Your task to perform on an android device: open app "Google Chat" (install if not already installed) Image 0: 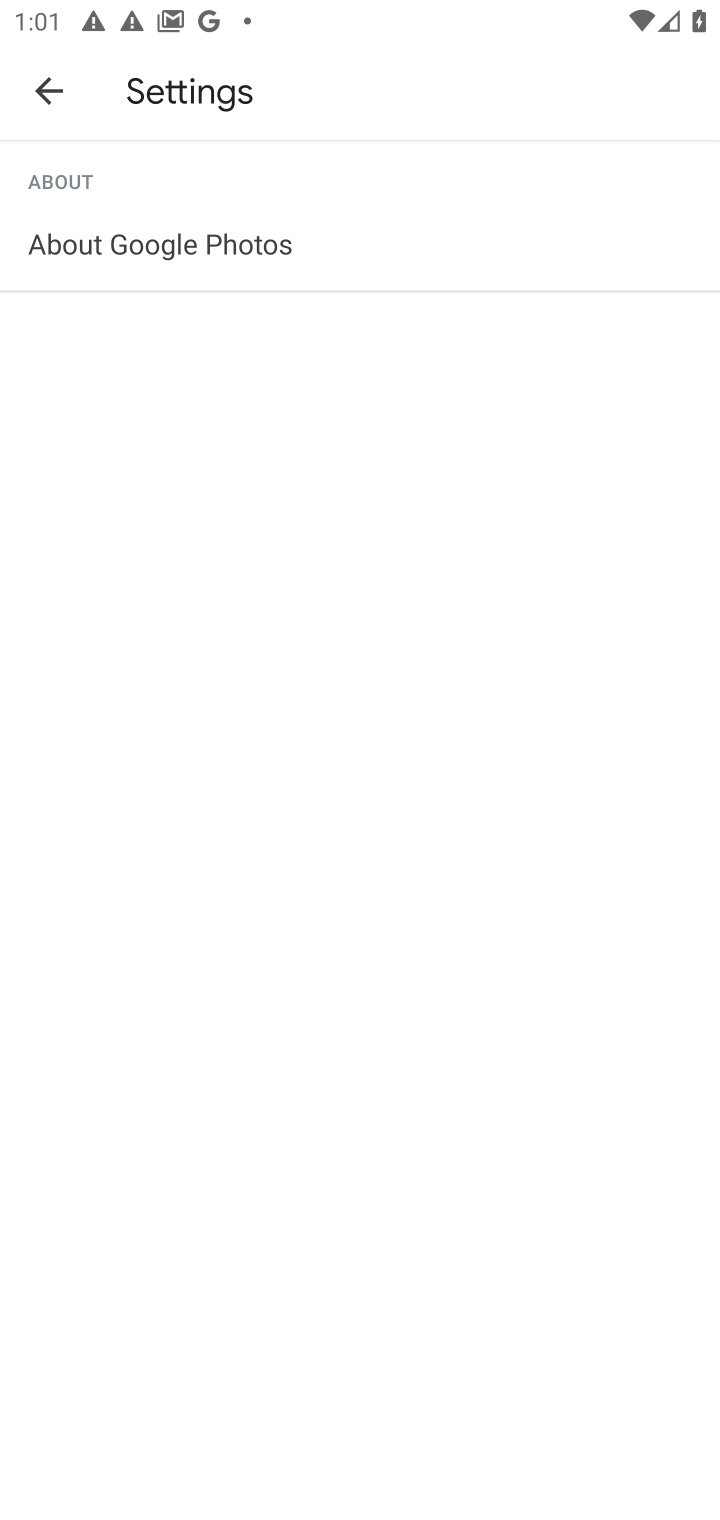
Step 0: press home button
Your task to perform on an android device: open app "Google Chat" (install if not already installed) Image 1: 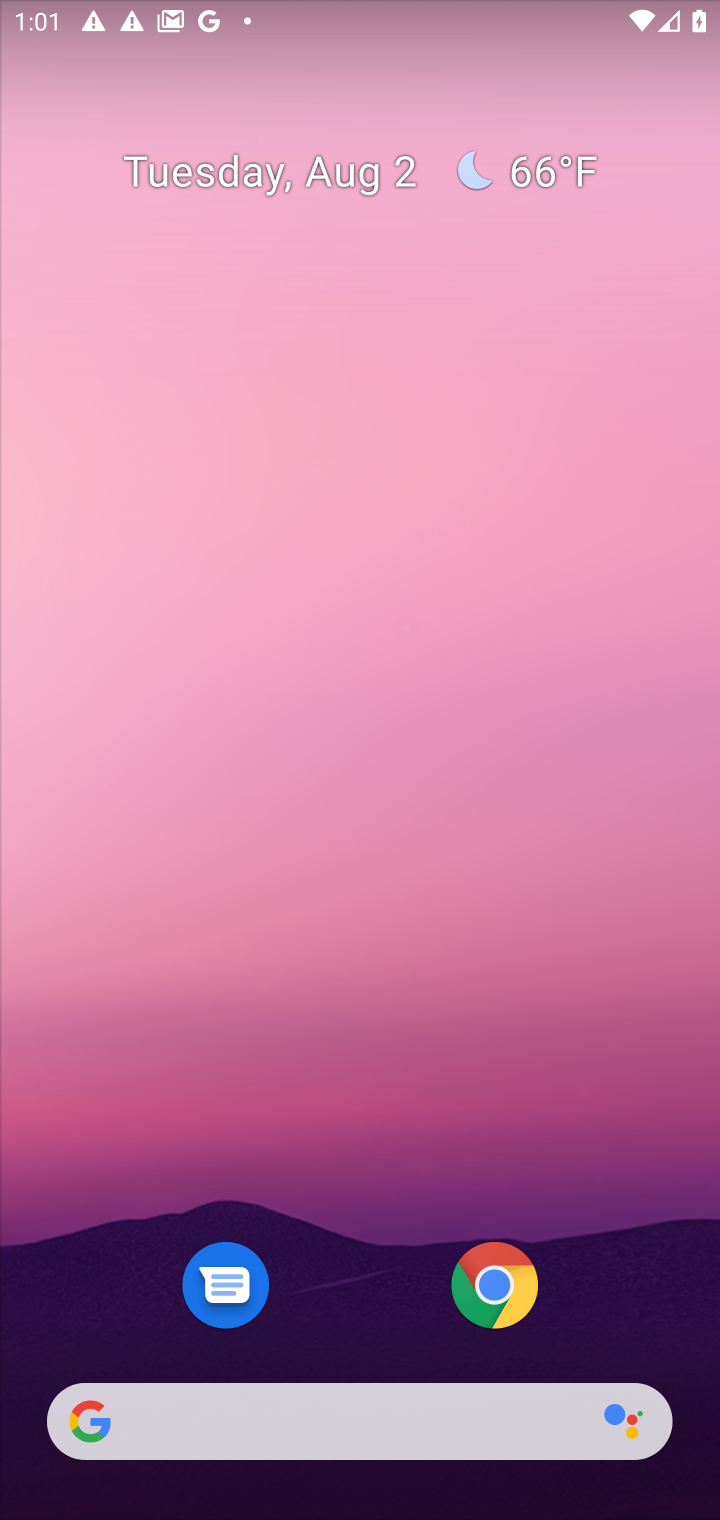
Step 1: drag from (337, 1143) to (313, 62)
Your task to perform on an android device: open app "Google Chat" (install if not already installed) Image 2: 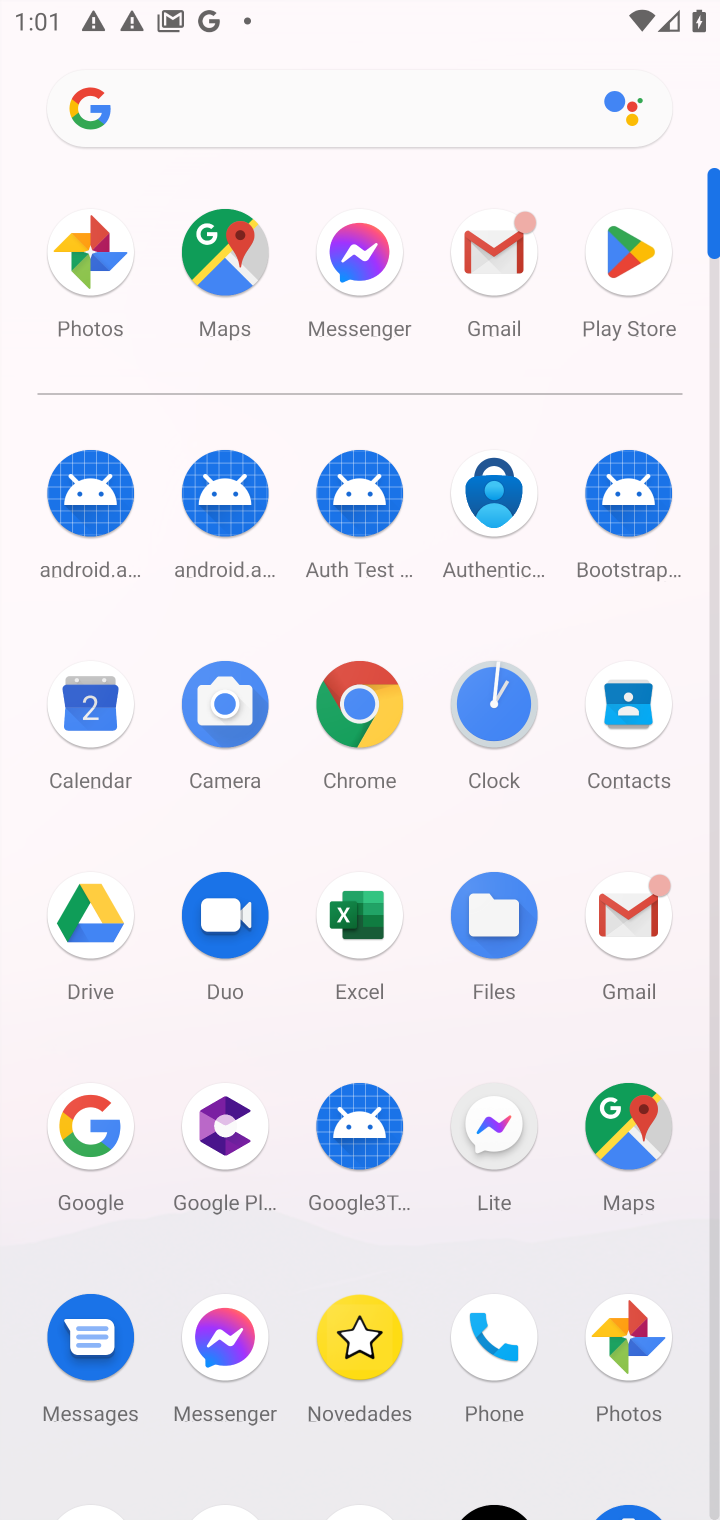
Step 2: drag from (434, 1226) to (476, 531)
Your task to perform on an android device: open app "Google Chat" (install if not already installed) Image 3: 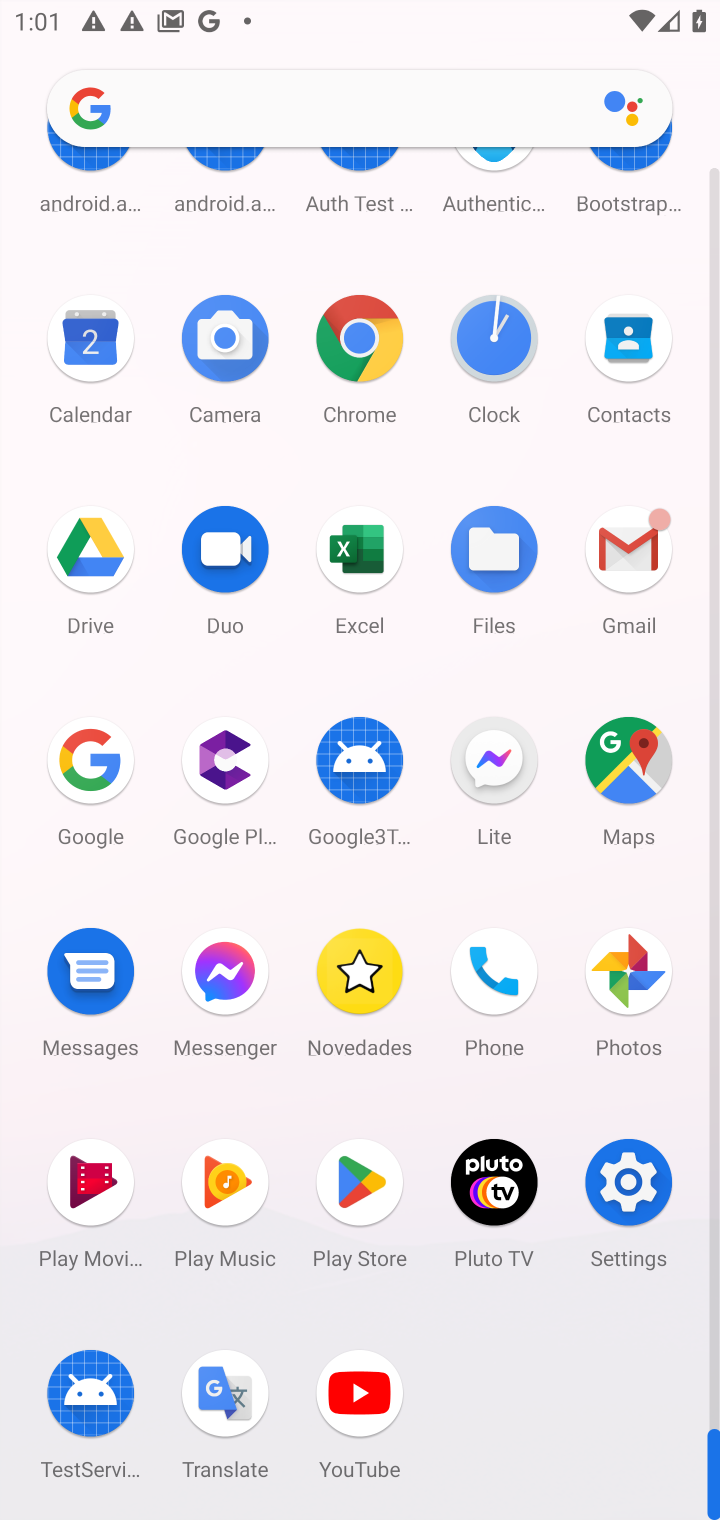
Step 3: click (367, 1204)
Your task to perform on an android device: open app "Google Chat" (install if not already installed) Image 4: 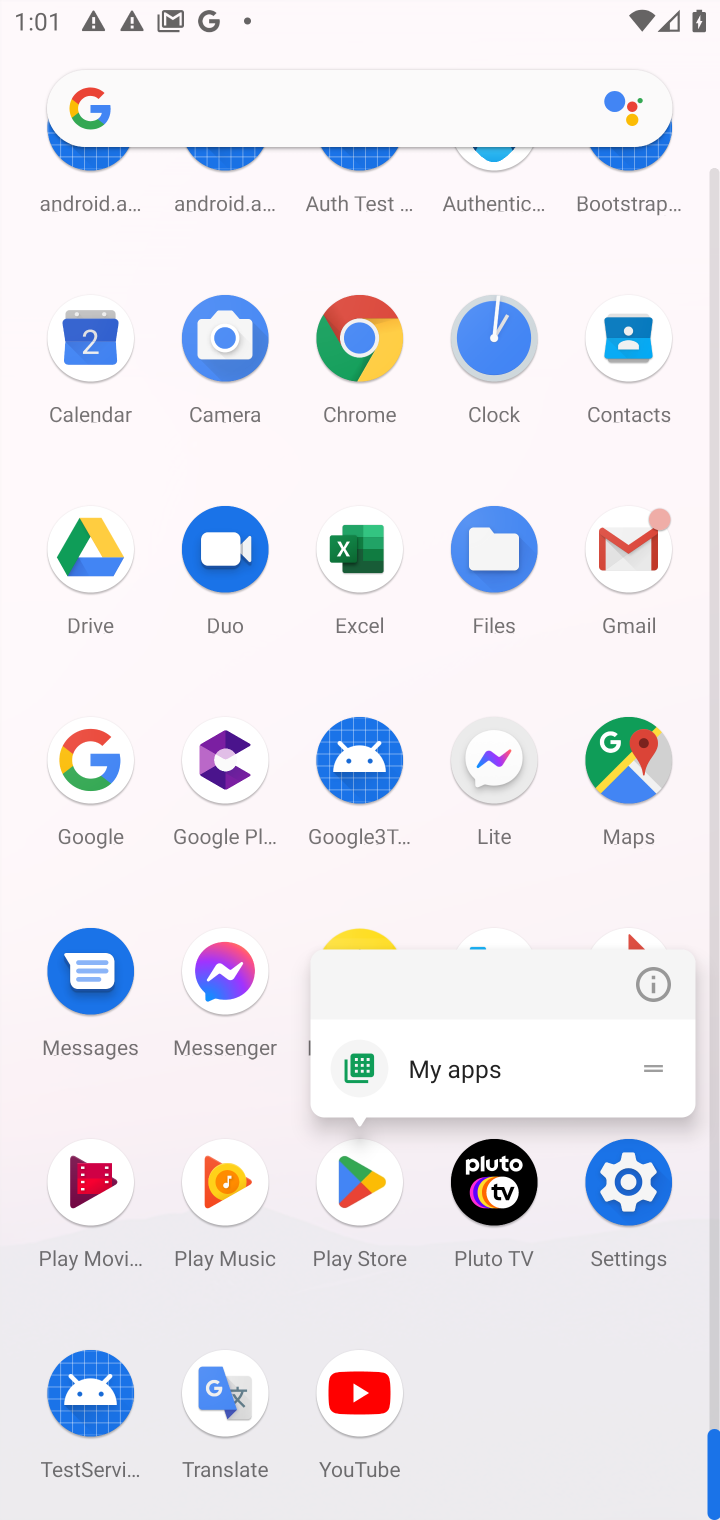
Step 4: click (346, 1182)
Your task to perform on an android device: open app "Google Chat" (install if not already installed) Image 5: 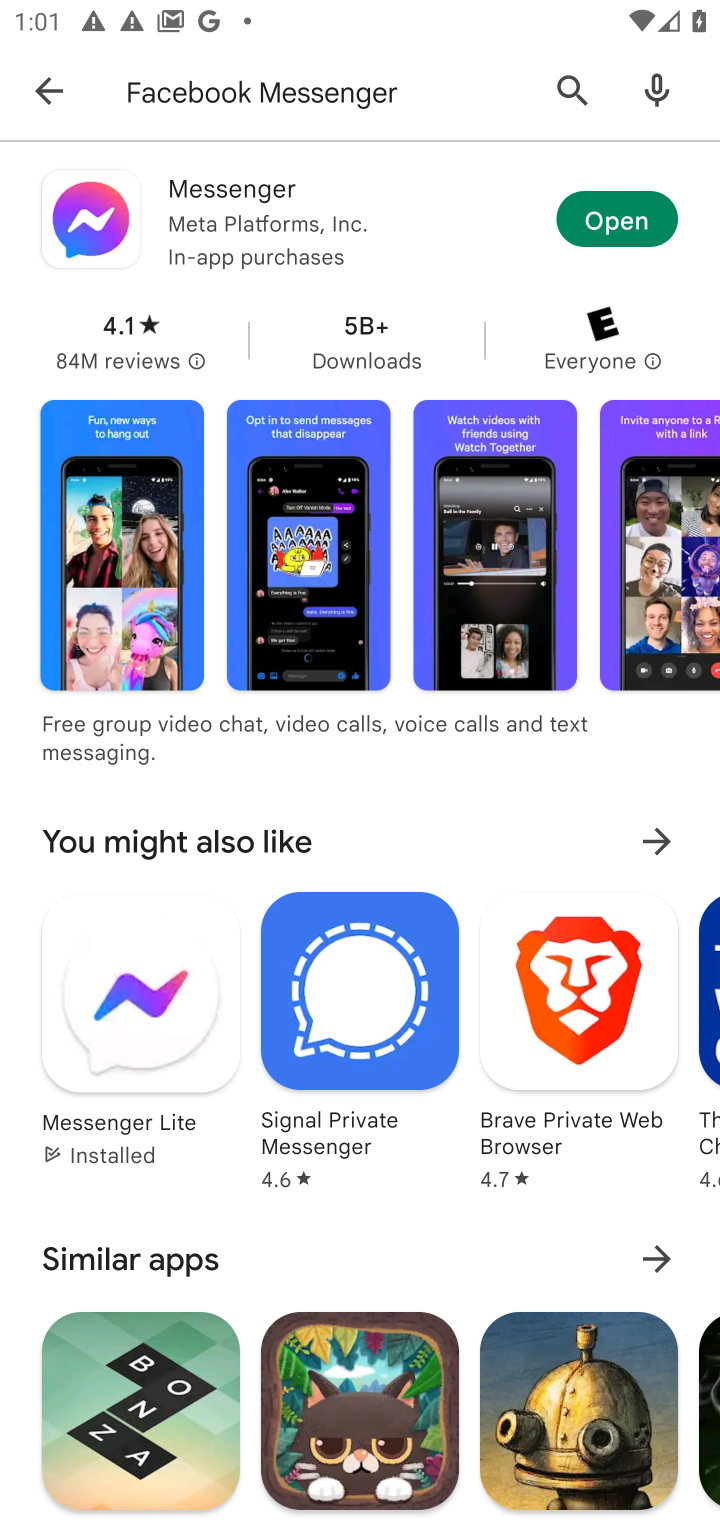
Step 5: click (430, 89)
Your task to perform on an android device: open app "Google Chat" (install if not already installed) Image 6: 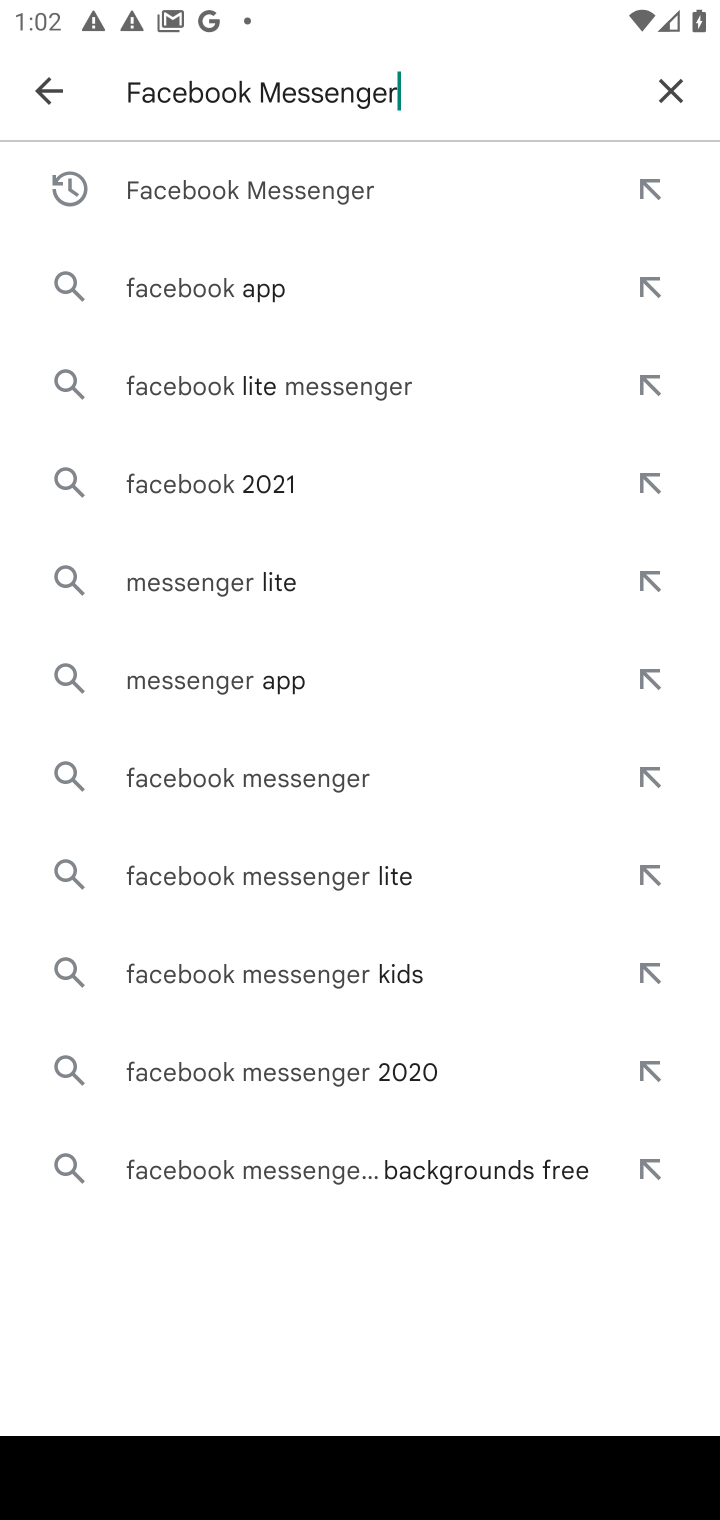
Step 6: click (647, 92)
Your task to perform on an android device: open app "Google Chat" (install if not already installed) Image 7: 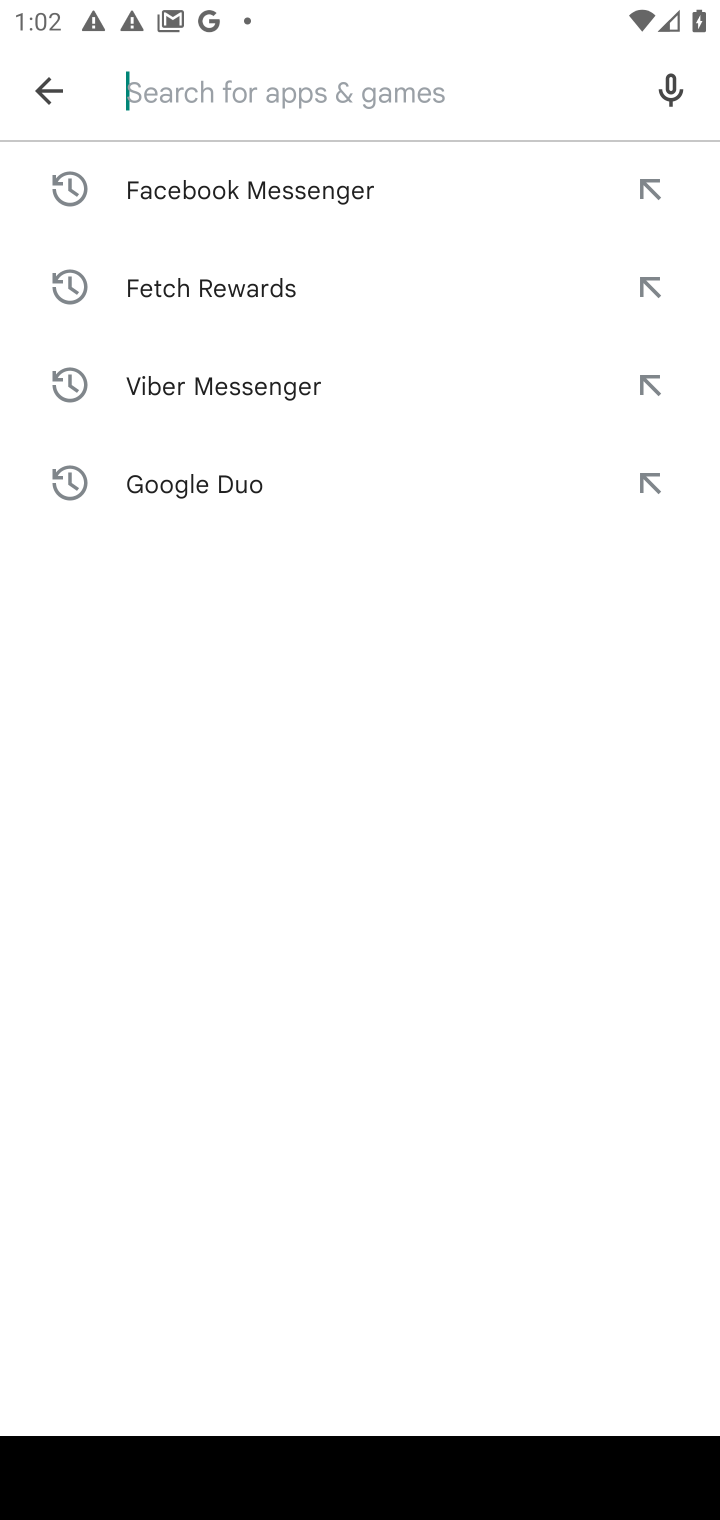
Step 7: type "Google Chat"
Your task to perform on an android device: open app "Google Chat" (install if not already installed) Image 8: 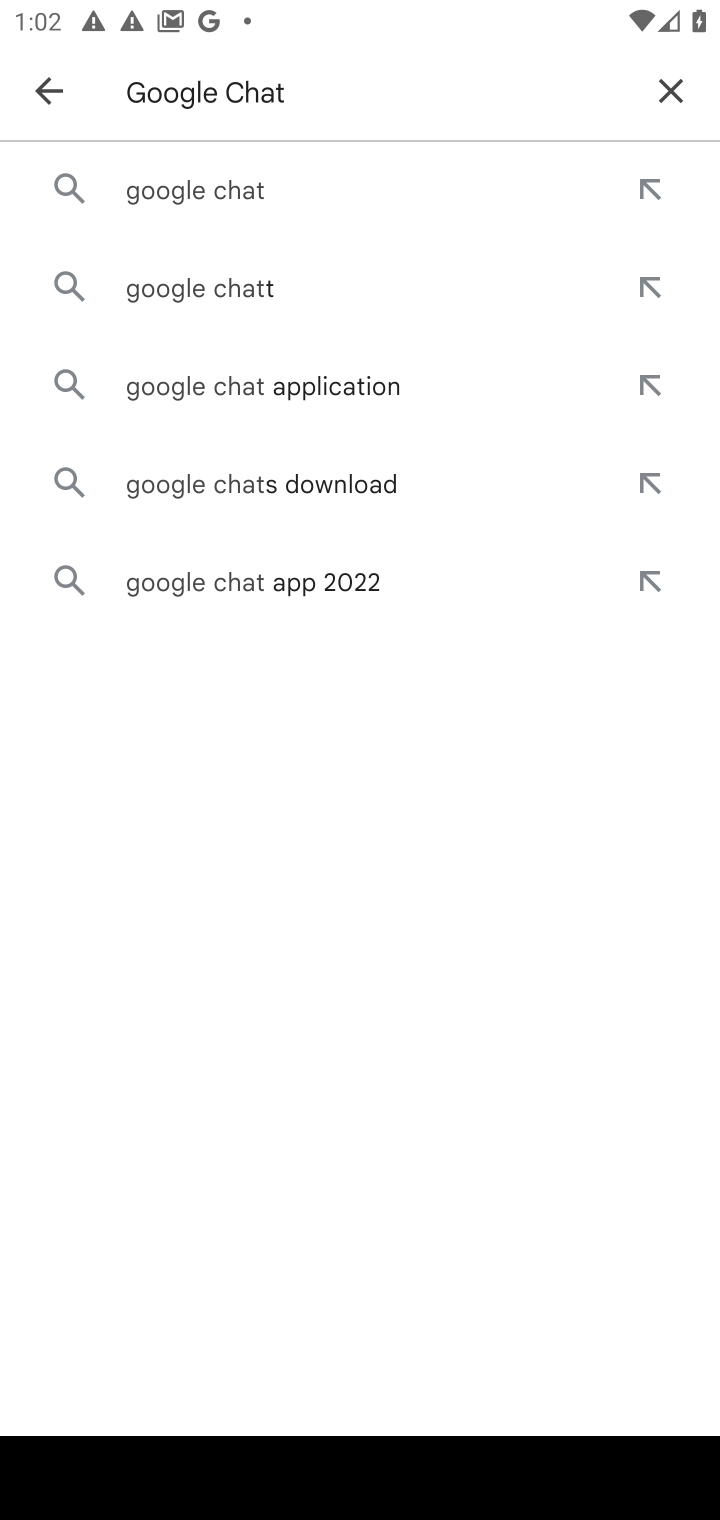
Step 8: press enter
Your task to perform on an android device: open app "Google Chat" (install if not already installed) Image 9: 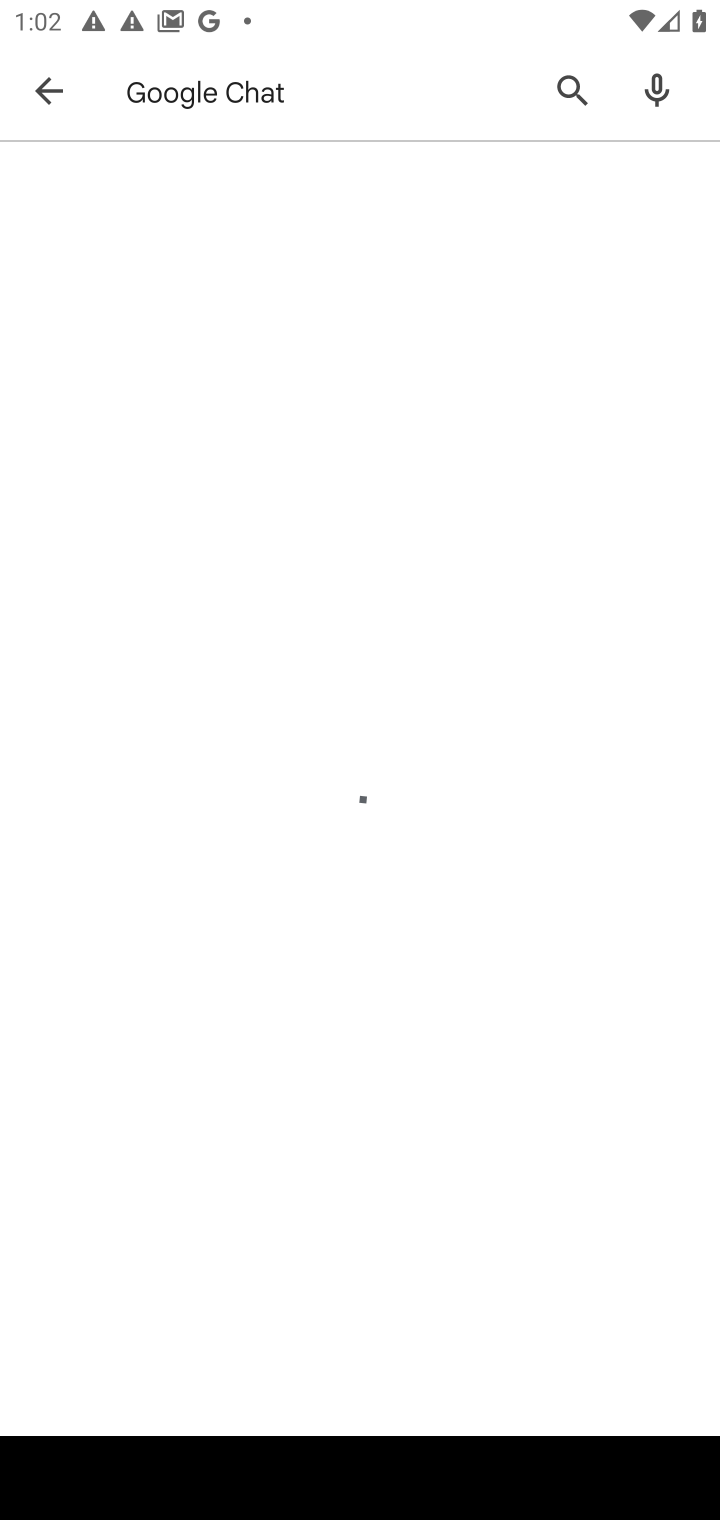
Step 9: press enter
Your task to perform on an android device: open app "Google Chat" (install if not already installed) Image 10: 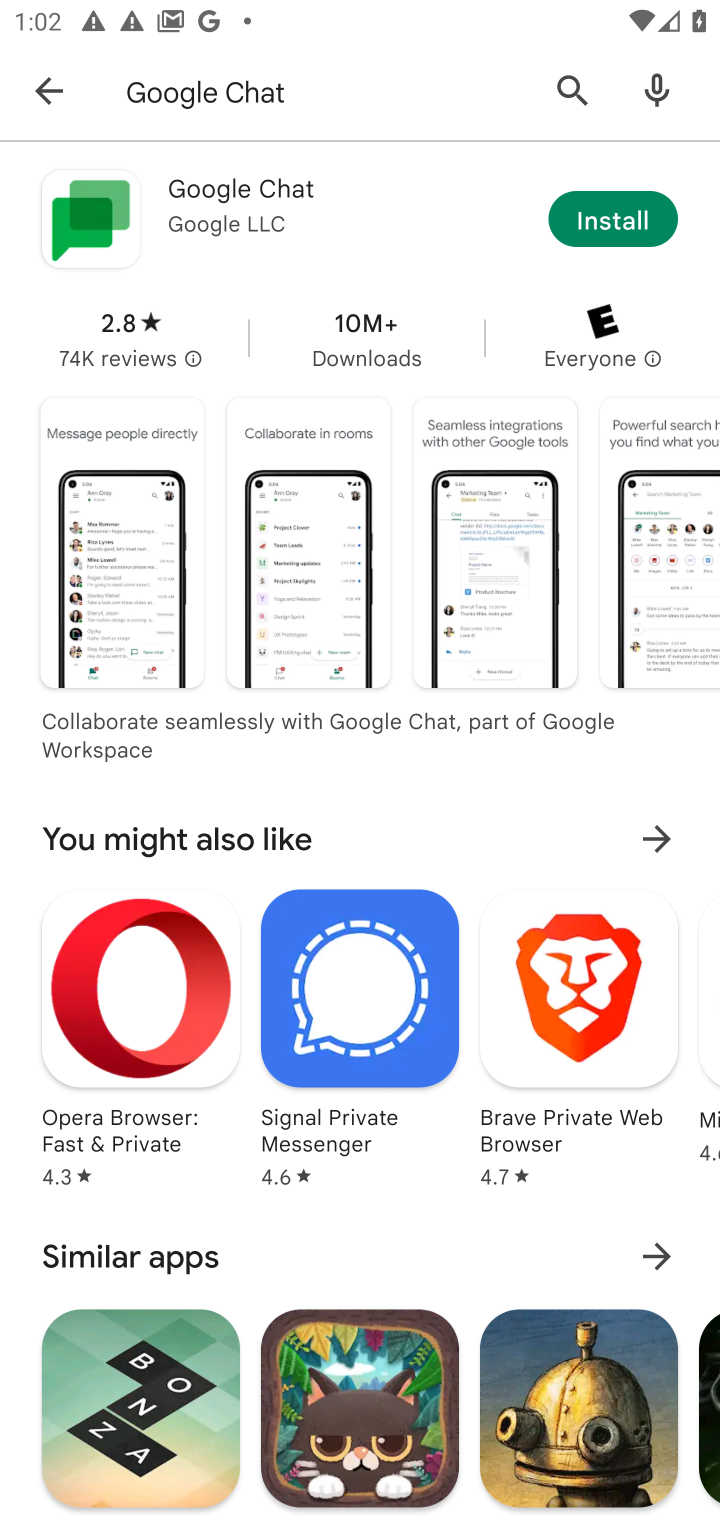
Step 10: click (650, 204)
Your task to perform on an android device: open app "Google Chat" (install if not already installed) Image 11: 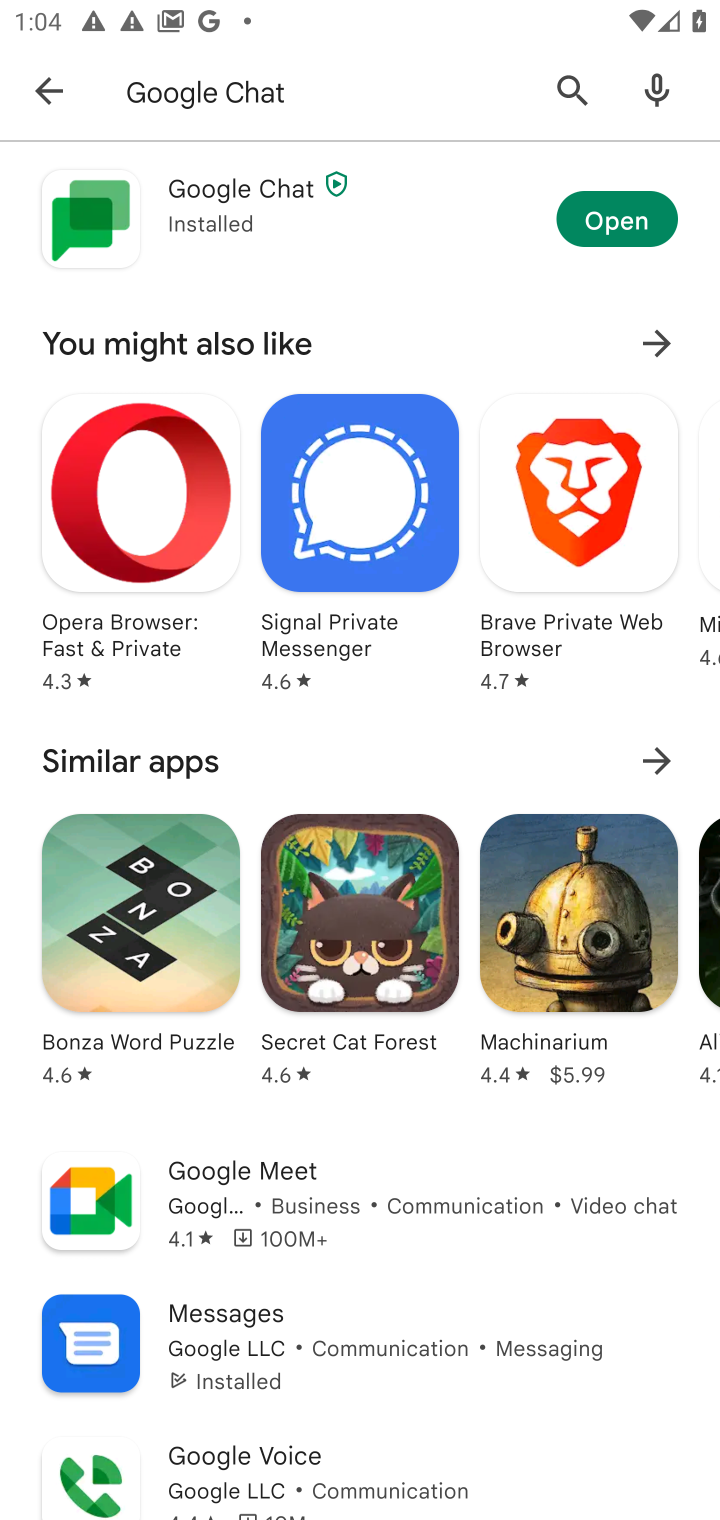
Step 11: click (604, 206)
Your task to perform on an android device: open app "Google Chat" (install if not already installed) Image 12: 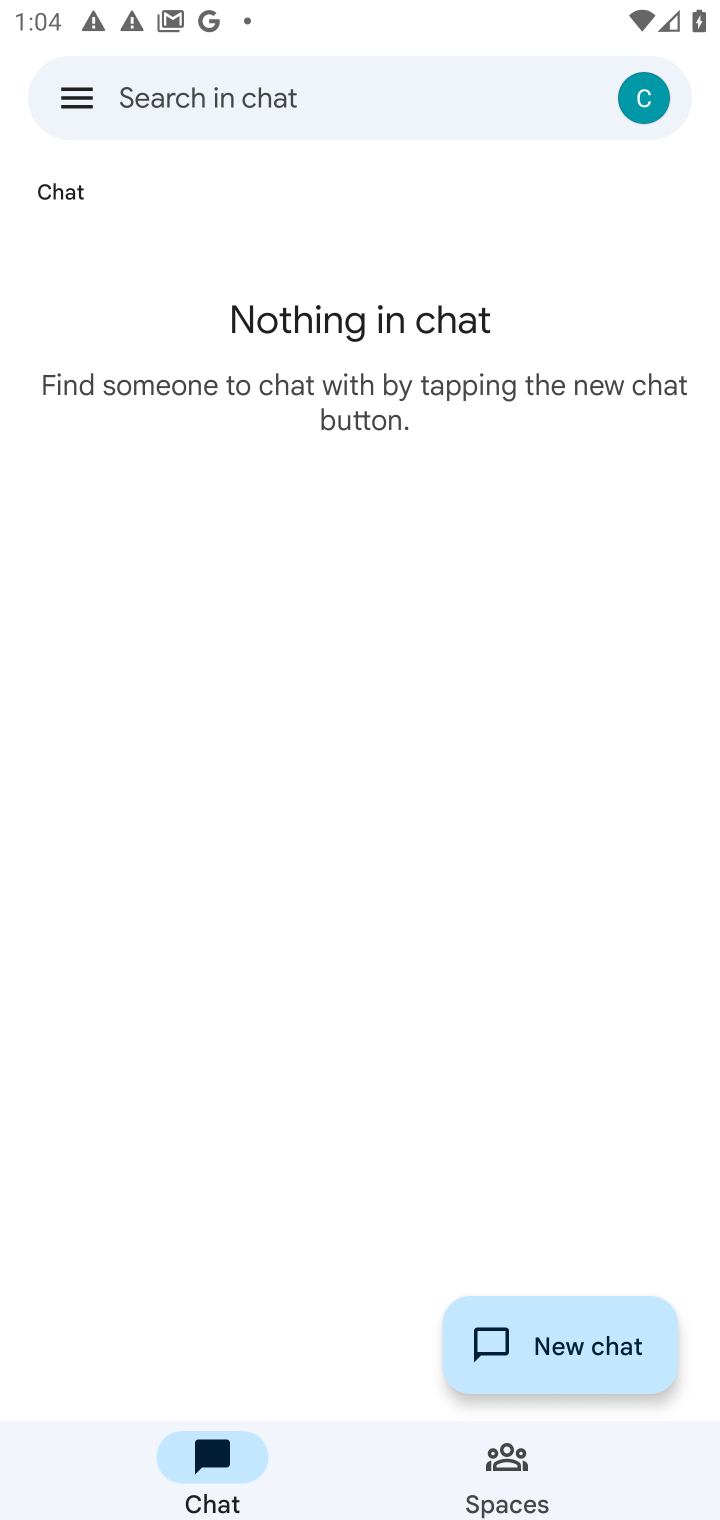
Step 12: task complete